Your task to perform on an android device: change the upload size in google photos Image 0: 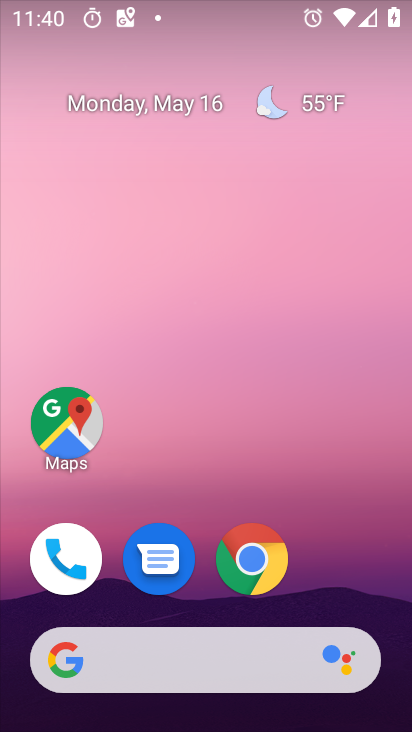
Step 0: drag from (303, 564) to (33, 0)
Your task to perform on an android device: change the upload size in google photos Image 1: 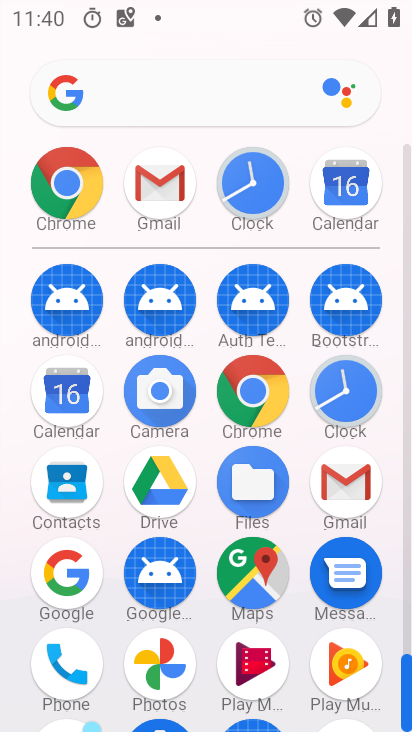
Step 1: click (174, 657)
Your task to perform on an android device: change the upload size in google photos Image 2: 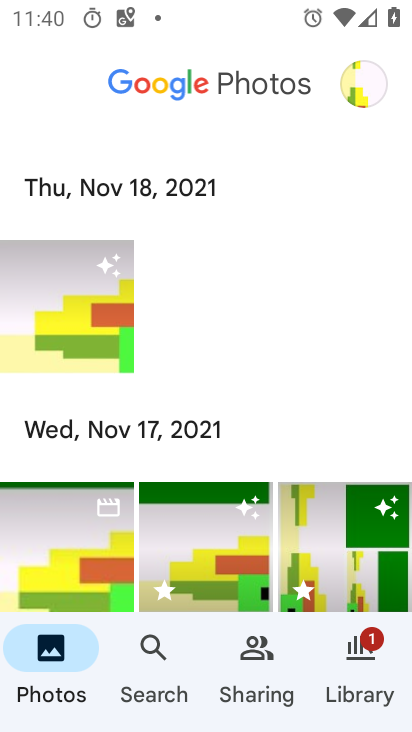
Step 2: click (370, 85)
Your task to perform on an android device: change the upload size in google photos Image 3: 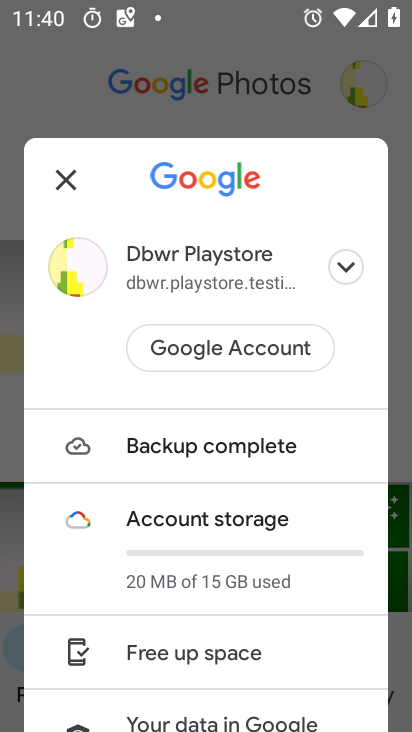
Step 3: drag from (270, 576) to (278, 6)
Your task to perform on an android device: change the upload size in google photos Image 4: 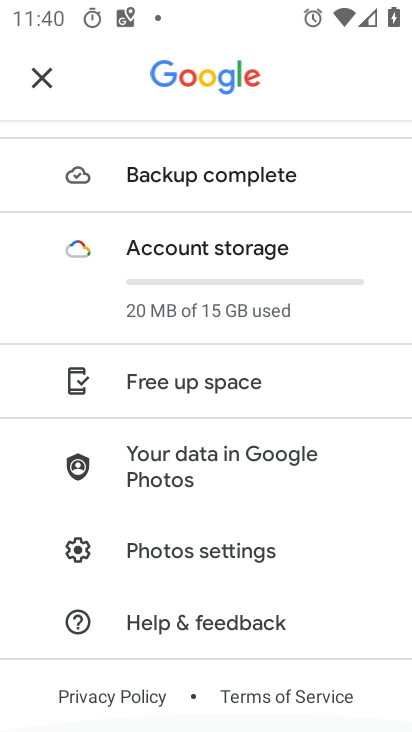
Step 4: drag from (177, 519) to (242, 203)
Your task to perform on an android device: change the upload size in google photos Image 5: 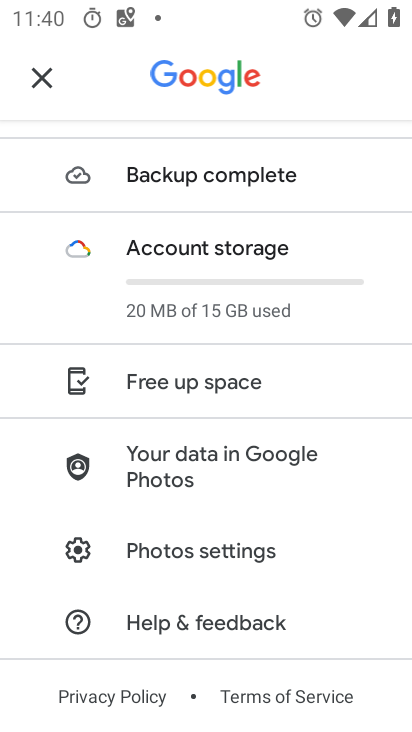
Step 5: click (224, 555)
Your task to perform on an android device: change the upload size in google photos Image 6: 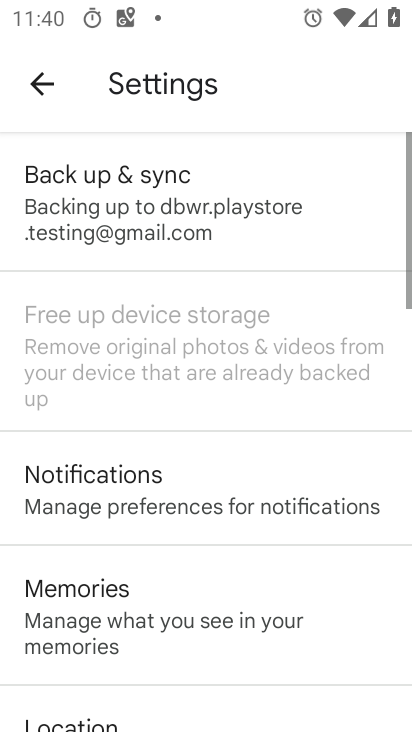
Step 6: click (196, 191)
Your task to perform on an android device: change the upload size in google photos Image 7: 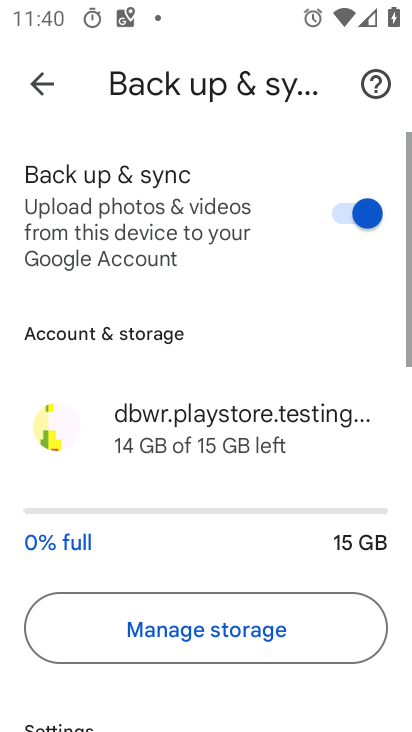
Step 7: drag from (193, 618) to (243, 184)
Your task to perform on an android device: change the upload size in google photos Image 8: 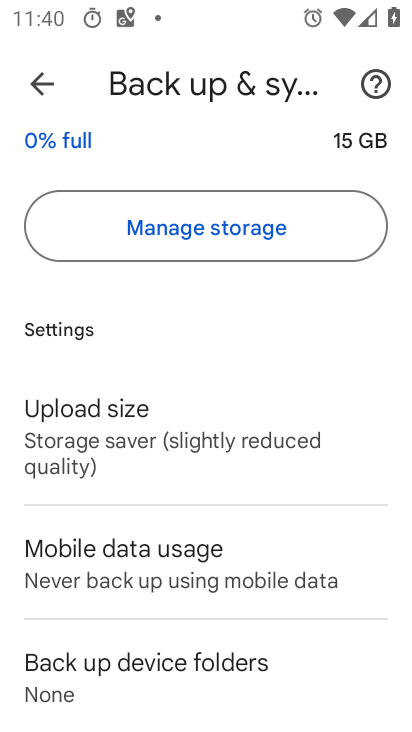
Step 8: click (154, 461)
Your task to perform on an android device: change the upload size in google photos Image 9: 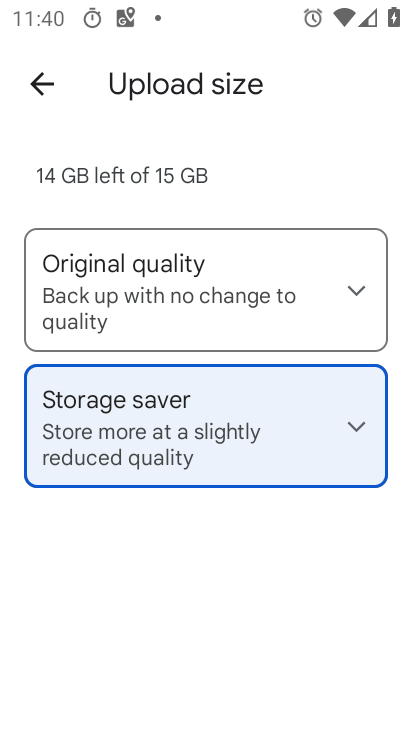
Step 9: click (148, 298)
Your task to perform on an android device: change the upload size in google photos Image 10: 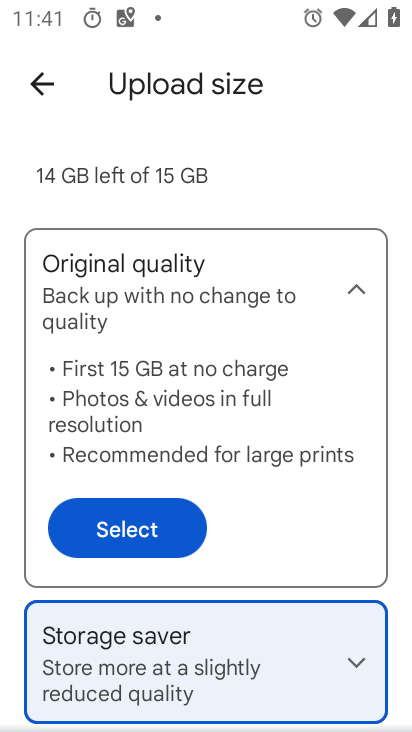
Step 10: click (138, 528)
Your task to perform on an android device: change the upload size in google photos Image 11: 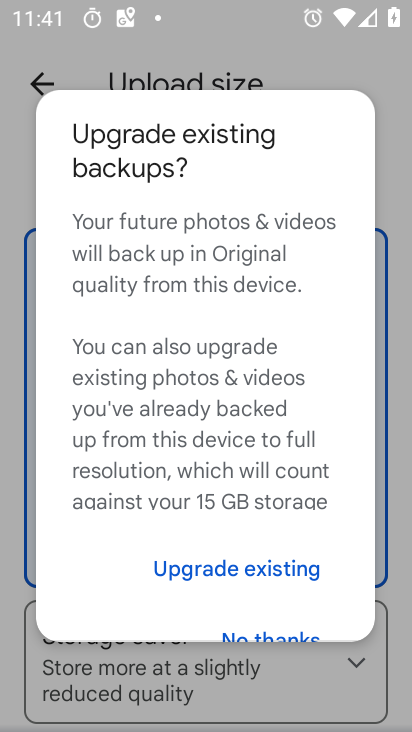
Step 11: click (252, 636)
Your task to perform on an android device: change the upload size in google photos Image 12: 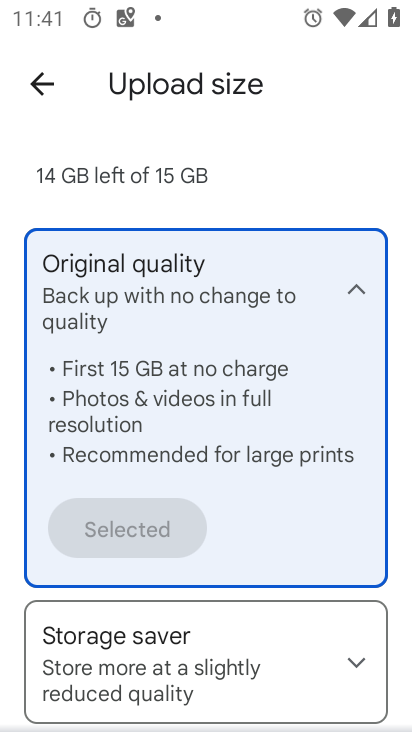
Step 12: task complete